Your task to perform on an android device: set an alarm Image 0: 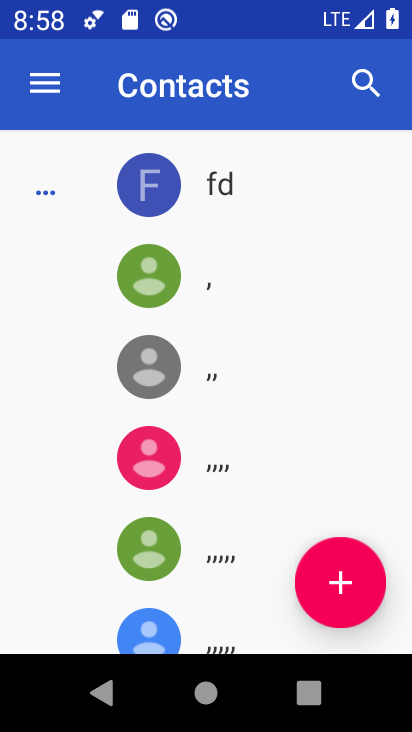
Step 0: press back button
Your task to perform on an android device: set an alarm Image 1: 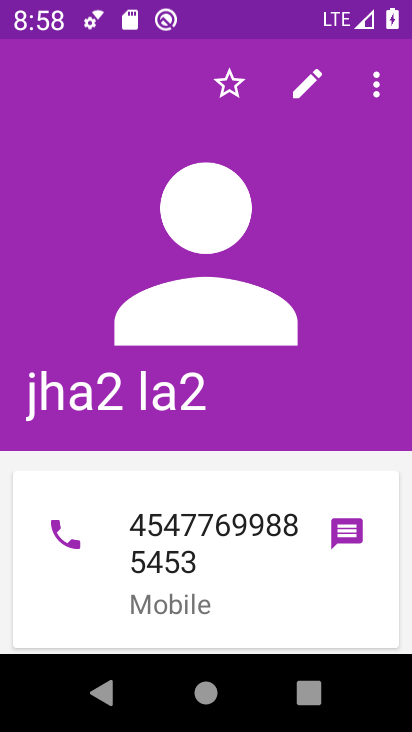
Step 1: press home button
Your task to perform on an android device: set an alarm Image 2: 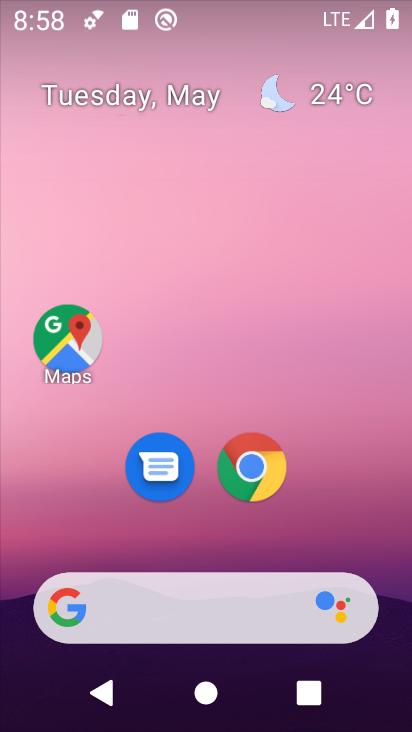
Step 2: drag from (381, 701) to (354, 292)
Your task to perform on an android device: set an alarm Image 3: 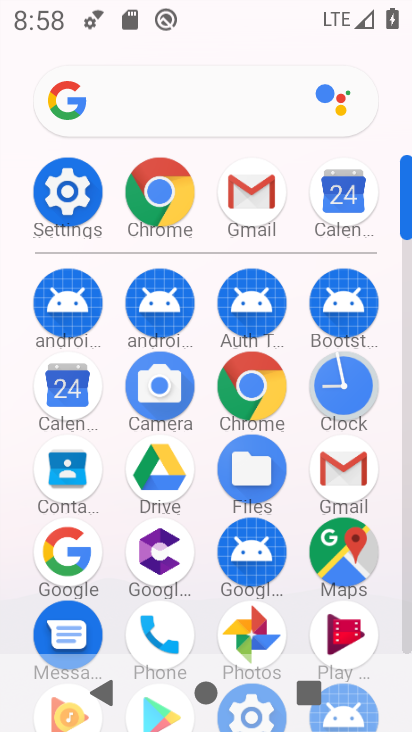
Step 3: click (354, 380)
Your task to perform on an android device: set an alarm Image 4: 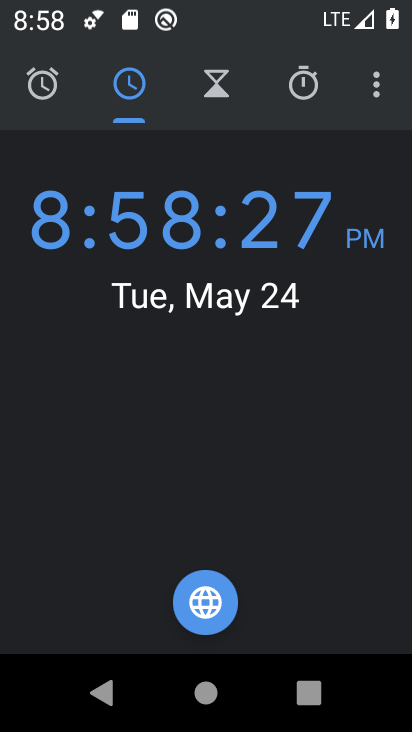
Step 4: click (37, 77)
Your task to perform on an android device: set an alarm Image 5: 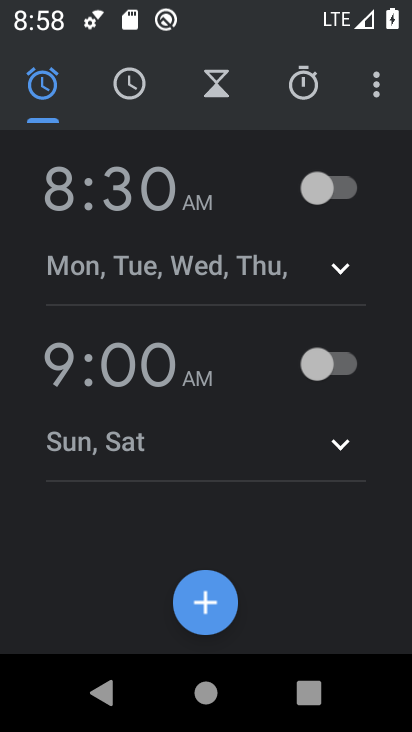
Step 5: click (350, 188)
Your task to perform on an android device: set an alarm Image 6: 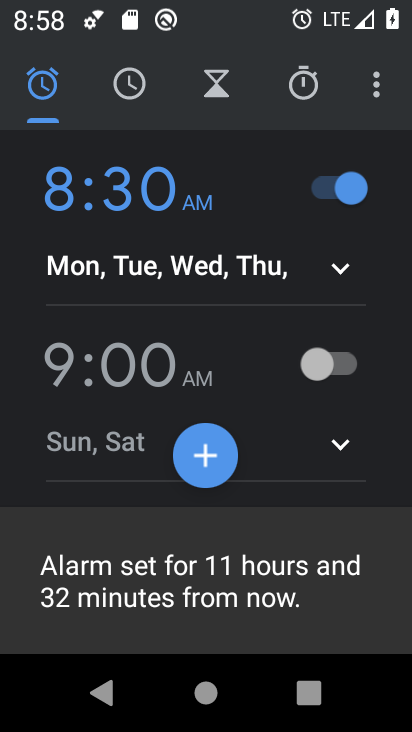
Step 6: task complete